Your task to perform on an android device: Open the stopwatch Image 0: 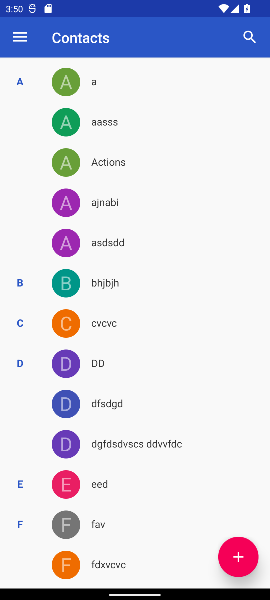
Step 0: press home button
Your task to perform on an android device: Open the stopwatch Image 1: 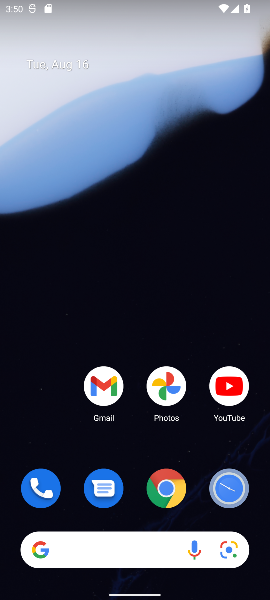
Step 1: drag from (139, 303) to (219, 331)
Your task to perform on an android device: Open the stopwatch Image 2: 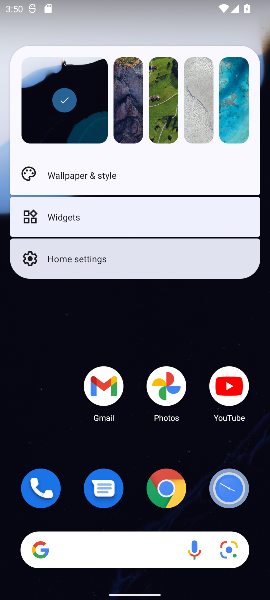
Step 2: click (156, 317)
Your task to perform on an android device: Open the stopwatch Image 3: 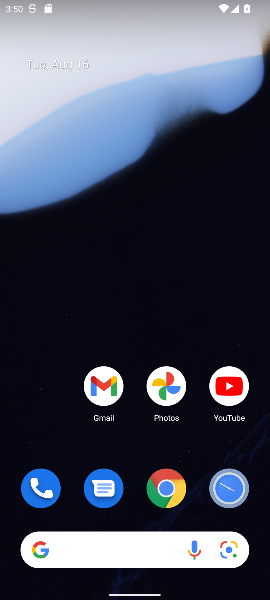
Step 3: drag from (141, 339) to (148, 128)
Your task to perform on an android device: Open the stopwatch Image 4: 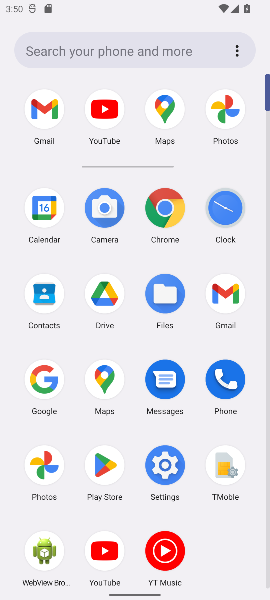
Step 4: click (228, 210)
Your task to perform on an android device: Open the stopwatch Image 5: 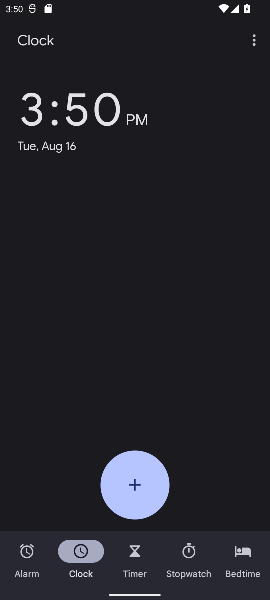
Step 5: click (186, 562)
Your task to perform on an android device: Open the stopwatch Image 6: 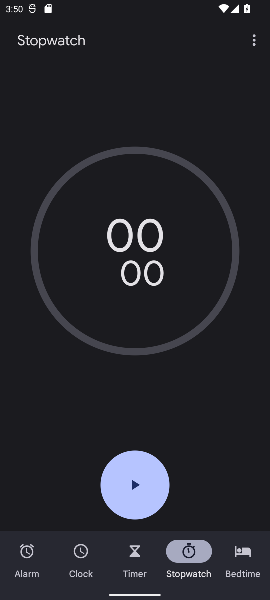
Step 6: task complete